Your task to perform on an android device: Go to Amazon Image 0: 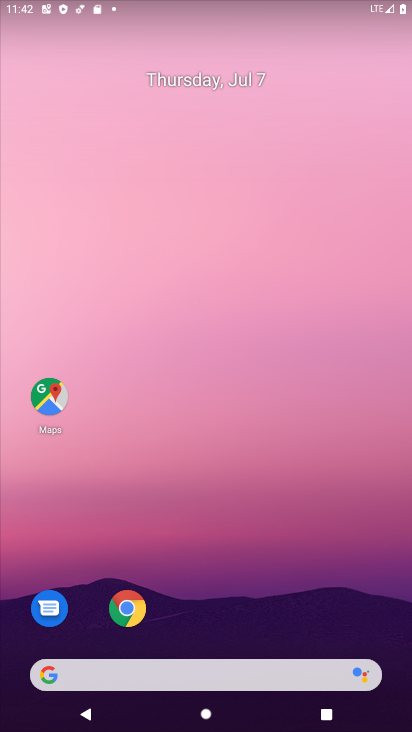
Step 0: drag from (204, 668) to (276, 77)
Your task to perform on an android device: Go to Amazon Image 1: 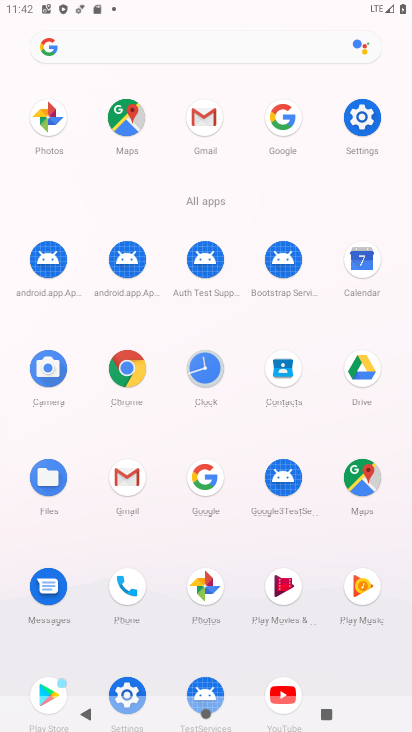
Step 1: click (126, 373)
Your task to perform on an android device: Go to Amazon Image 2: 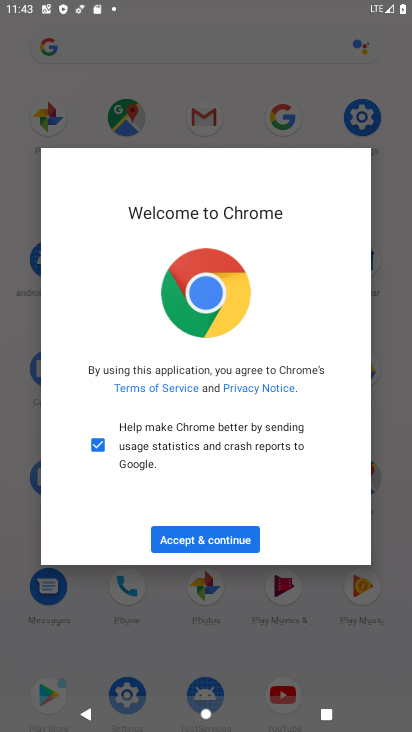
Step 2: click (231, 544)
Your task to perform on an android device: Go to Amazon Image 3: 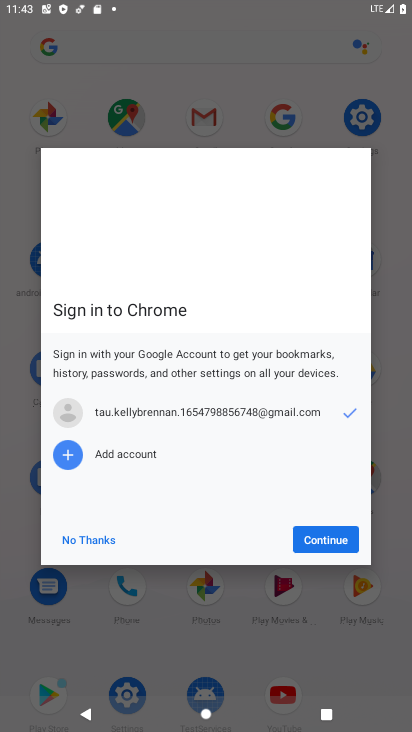
Step 3: click (335, 540)
Your task to perform on an android device: Go to Amazon Image 4: 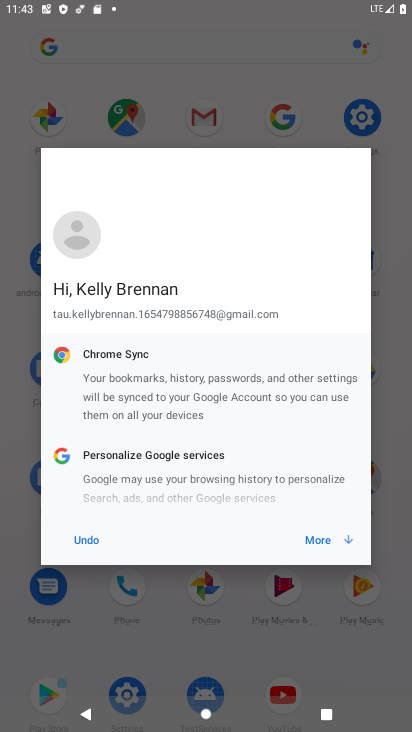
Step 4: click (335, 540)
Your task to perform on an android device: Go to Amazon Image 5: 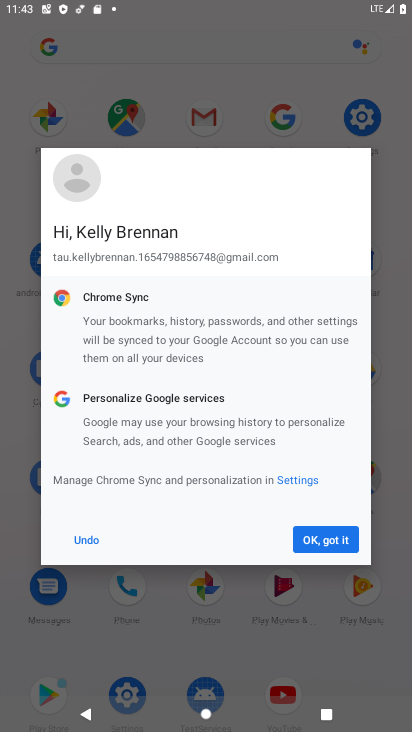
Step 5: click (334, 542)
Your task to perform on an android device: Go to Amazon Image 6: 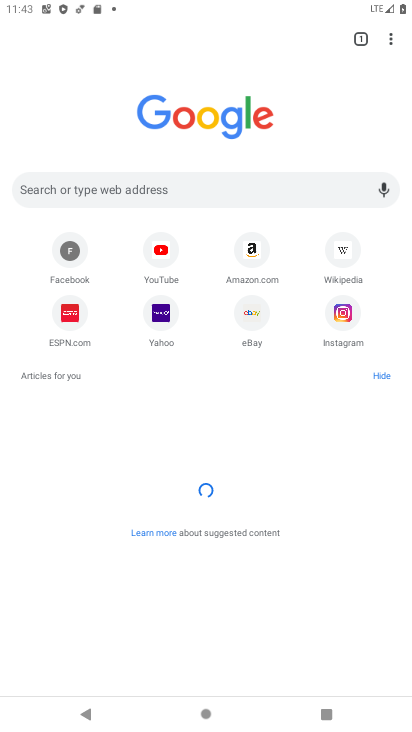
Step 6: click (252, 250)
Your task to perform on an android device: Go to Amazon Image 7: 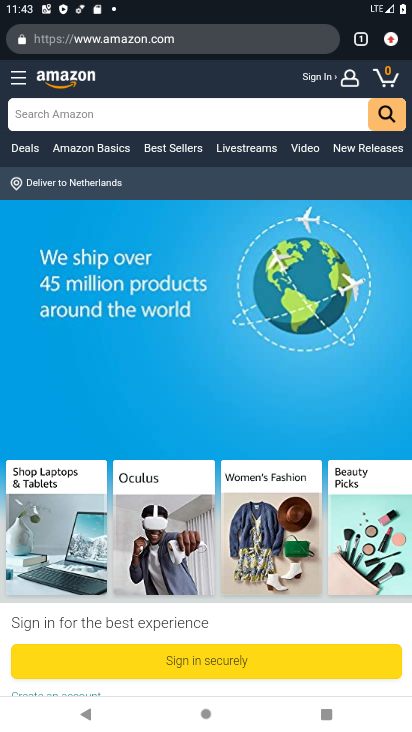
Step 7: task complete